Your task to perform on an android device: Do I have any events this weekend? Image 0: 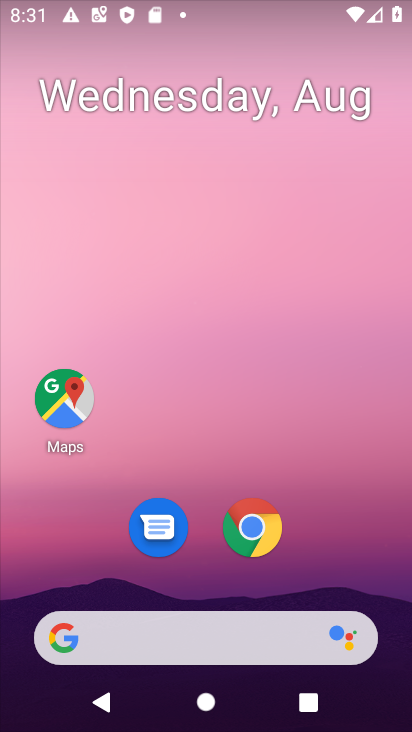
Step 0: click (205, 98)
Your task to perform on an android device: Do I have any events this weekend? Image 1: 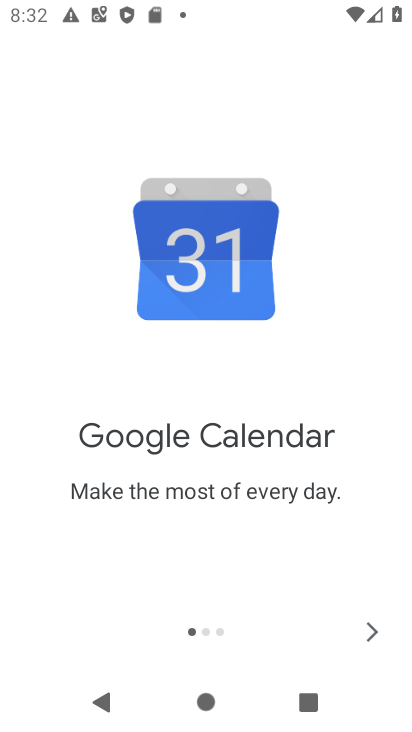
Step 1: click (368, 627)
Your task to perform on an android device: Do I have any events this weekend? Image 2: 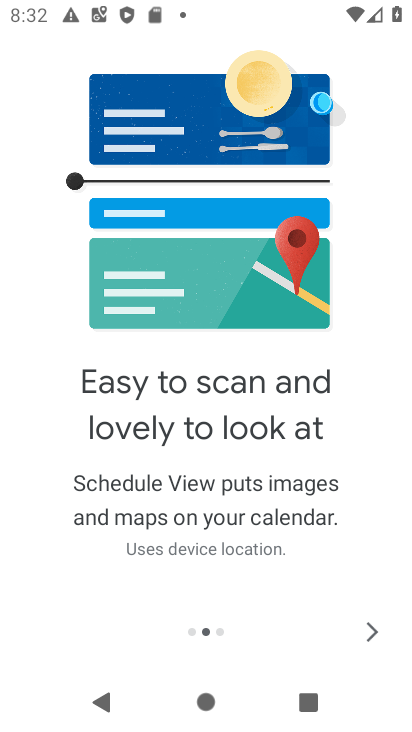
Step 2: click (368, 627)
Your task to perform on an android device: Do I have any events this weekend? Image 3: 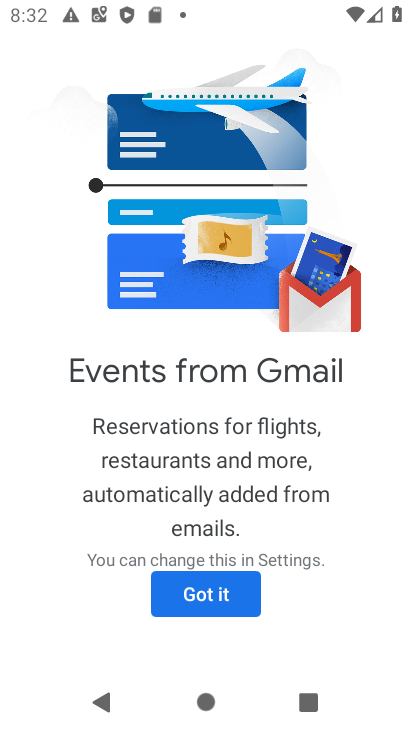
Step 3: click (368, 627)
Your task to perform on an android device: Do I have any events this weekend? Image 4: 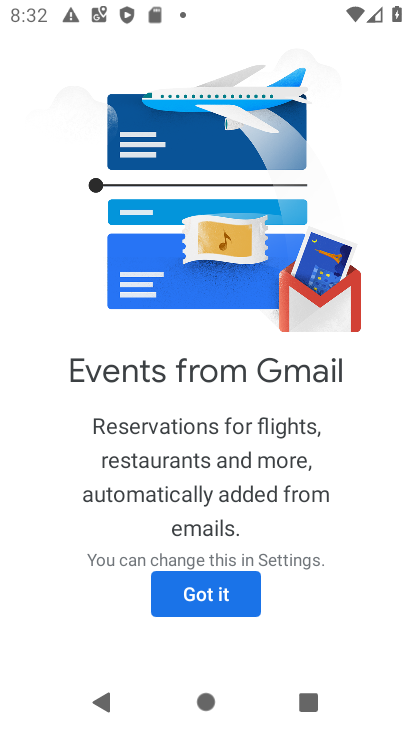
Step 4: click (171, 598)
Your task to perform on an android device: Do I have any events this weekend? Image 5: 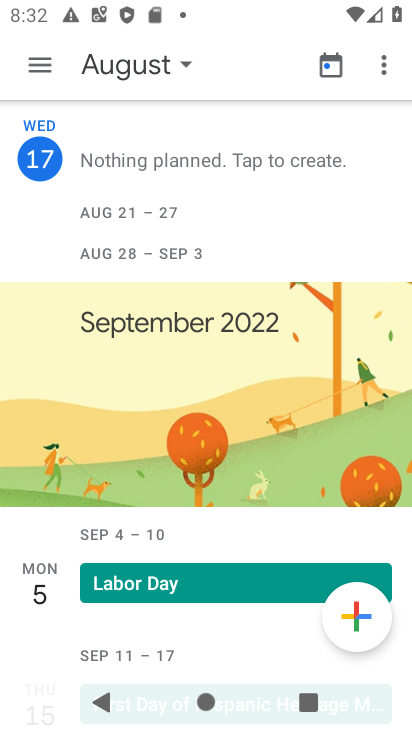
Step 5: click (40, 68)
Your task to perform on an android device: Do I have any events this weekend? Image 6: 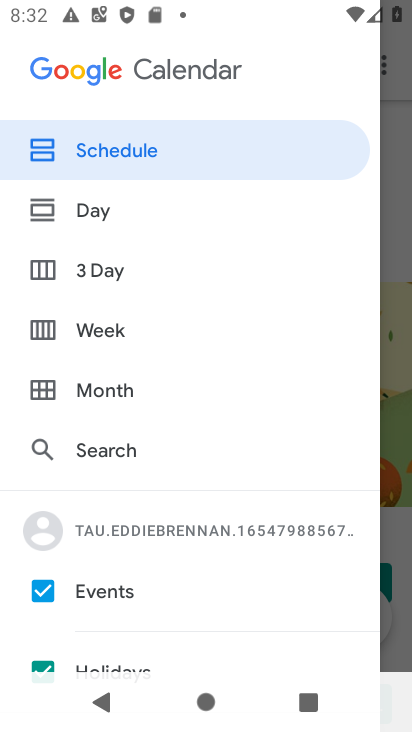
Step 6: drag from (50, 651) to (128, 161)
Your task to perform on an android device: Do I have any events this weekend? Image 7: 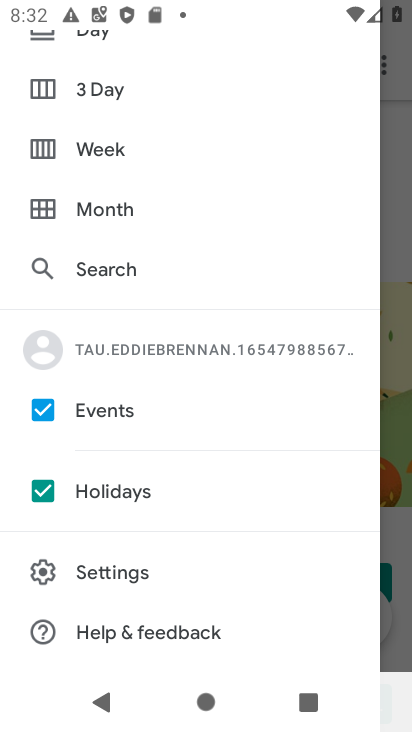
Step 7: click (43, 491)
Your task to perform on an android device: Do I have any events this weekend? Image 8: 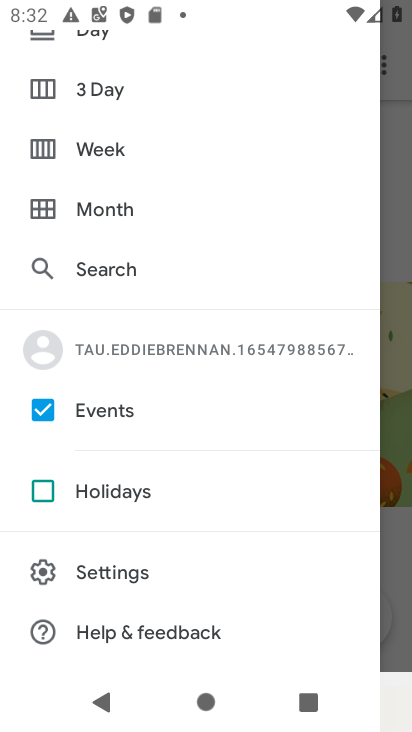
Step 8: click (401, 134)
Your task to perform on an android device: Do I have any events this weekend? Image 9: 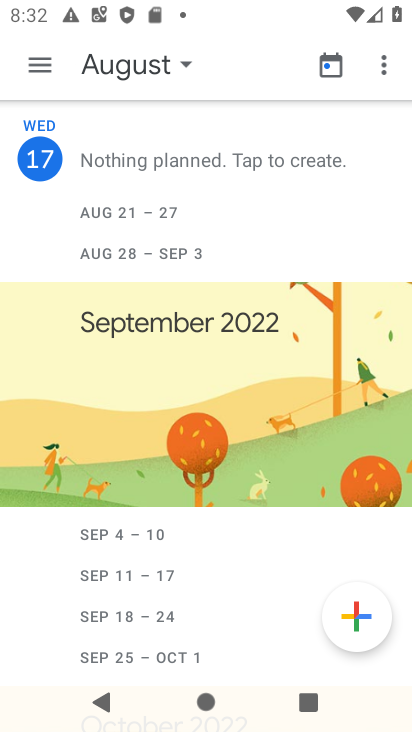
Step 9: click (135, 68)
Your task to perform on an android device: Do I have any events this weekend? Image 10: 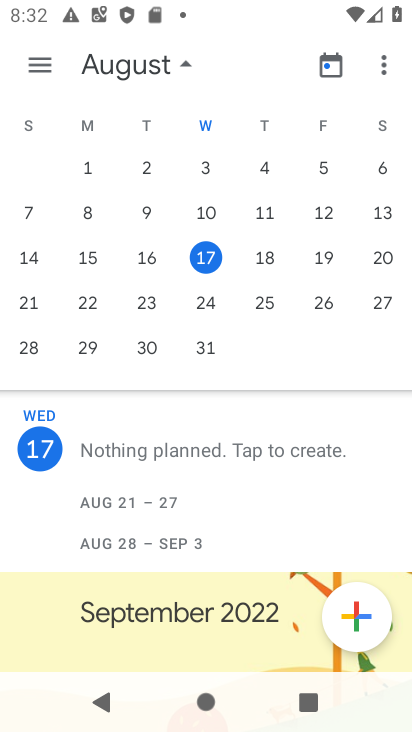
Step 10: click (381, 257)
Your task to perform on an android device: Do I have any events this weekend? Image 11: 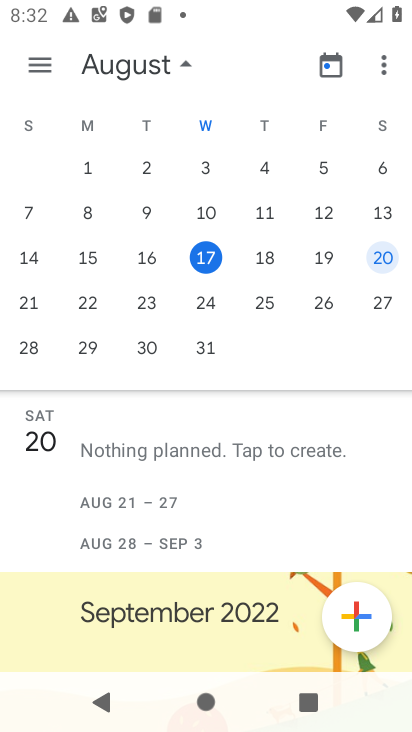
Step 11: task complete